Your task to perform on an android device: Open settings Image 0: 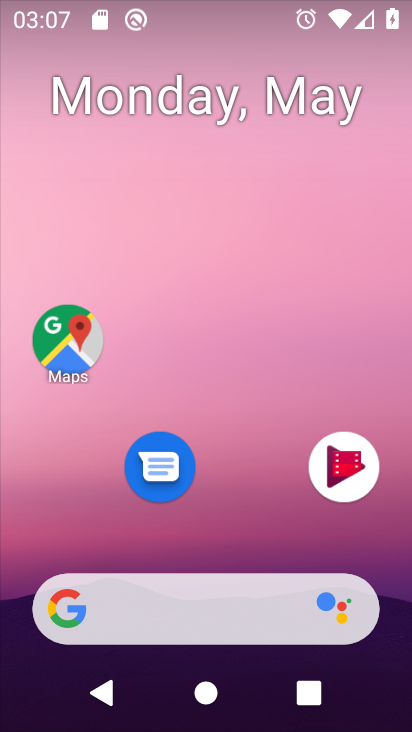
Step 0: drag from (237, 477) to (247, 101)
Your task to perform on an android device: Open settings Image 1: 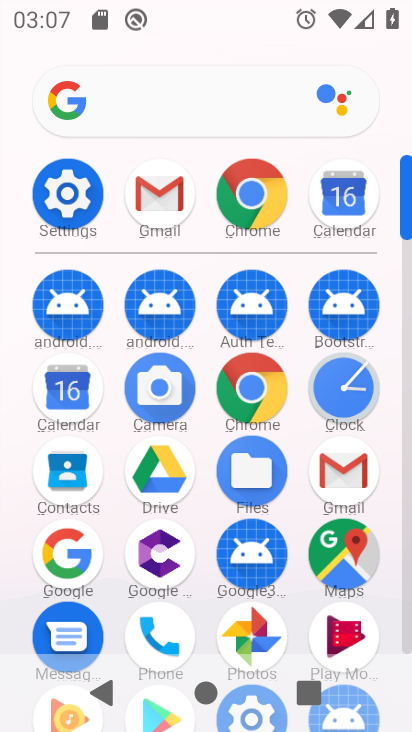
Step 1: click (65, 177)
Your task to perform on an android device: Open settings Image 2: 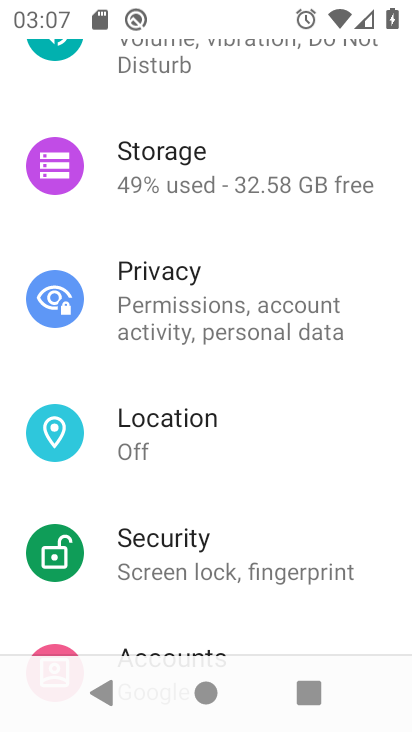
Step 2: task complete